Your task to perform on an android device: Open settings Image 0: 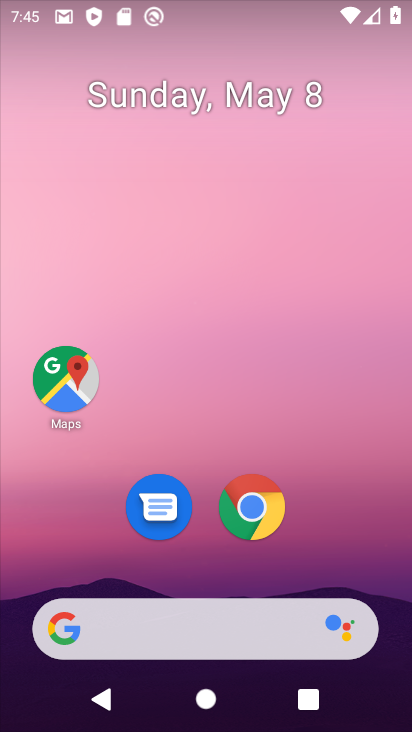
Step 0: drag from (352, 564) to (342, 66)
Your task to perform on an android device: Open settings Image 1: 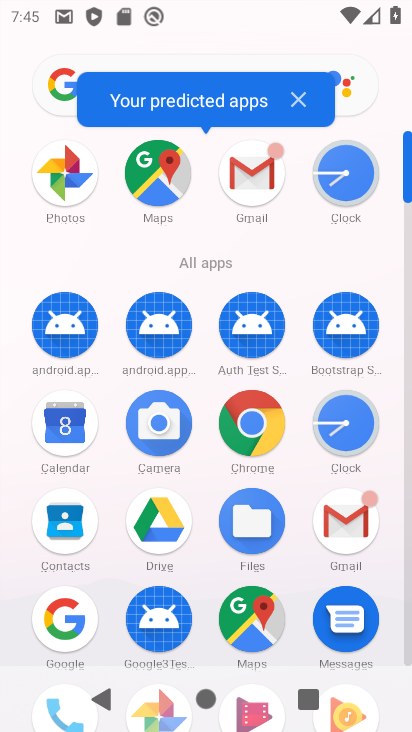
Step 1: click (410, 656)
Your task to perform on an android device: Open settings Image 2: 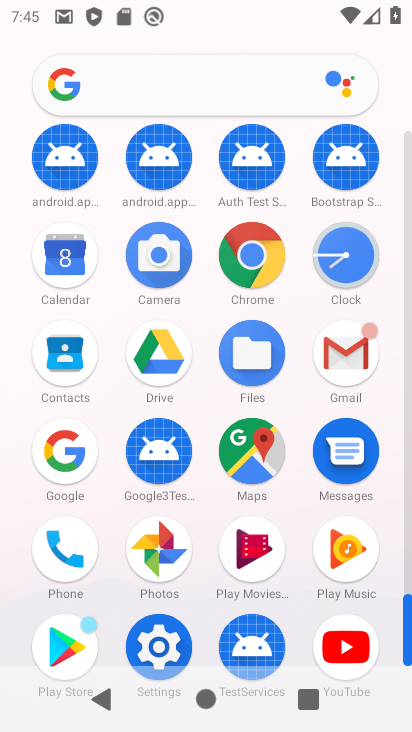
Step 2: click (155, 655)
Your task to perform on an android device: Open settings Image 3: 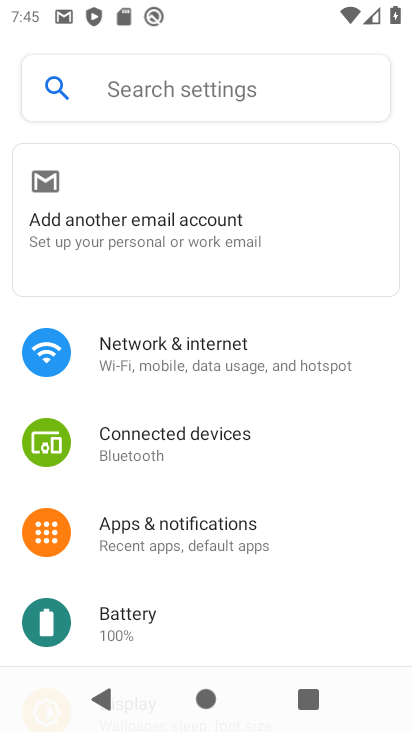
Step 3: task complete